Your task to perform on an android device: check storage Image 0: 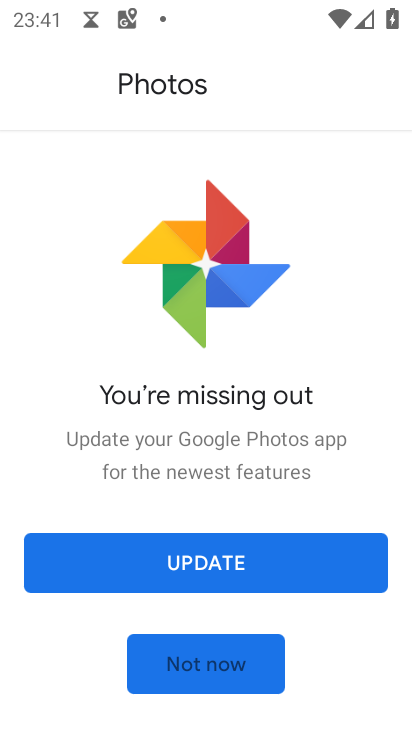
Step 0: press home button
Your task to perform on an android device: check storage Image 1: 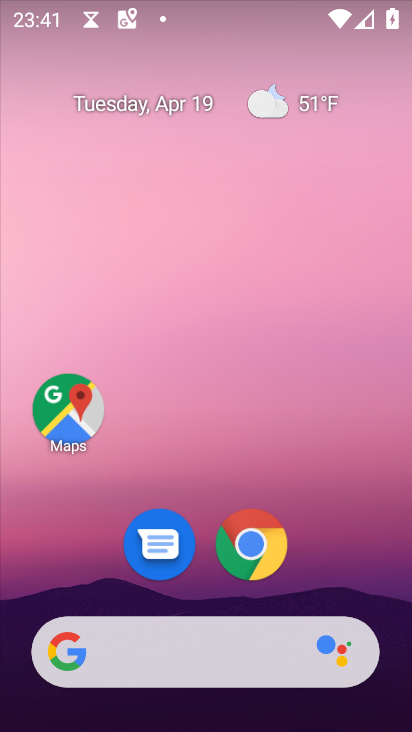
Step 1: drag from (348, 561) to (306, 163)
Your task to perform on an android device: check storage Image 2: 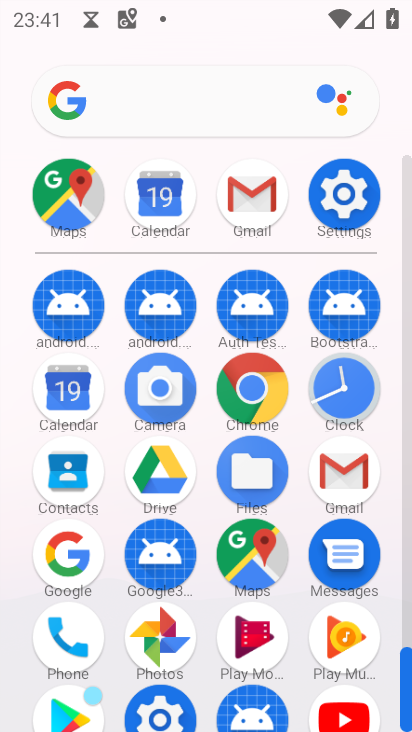
Step 2: click (350, 181)
Your task to perform on an android device: check storage Image 3: 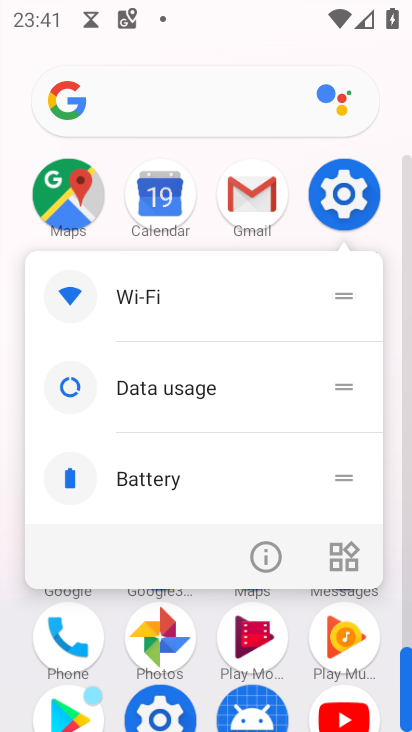
Step 3: click (350, 181)
Your task to perform on an android device: check storage Image 4: 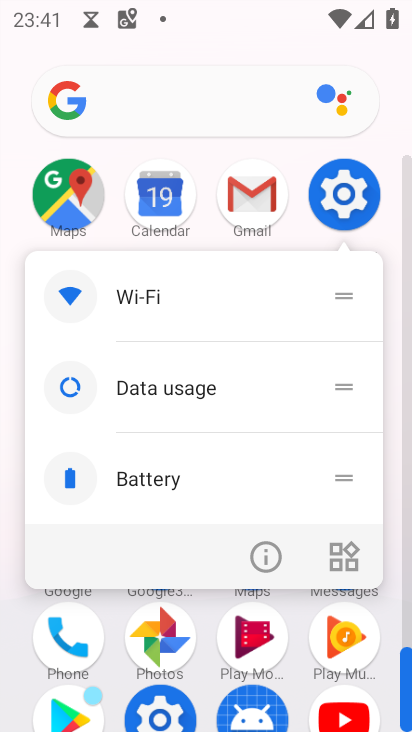
Step 4: click (350, 181)
Your task to perform on an android device: check storage Image 5: 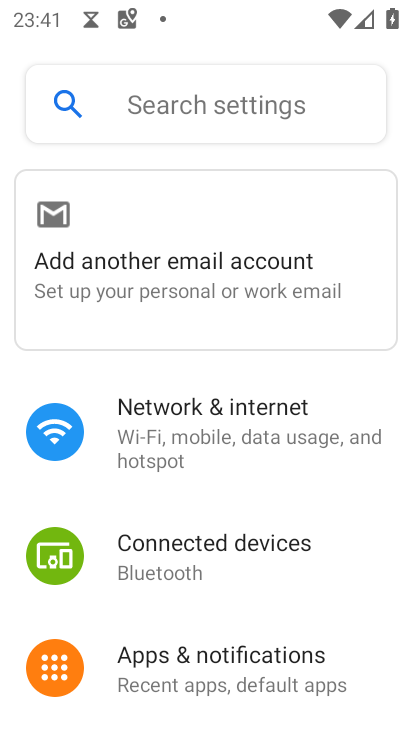
Step 5: drag from (192, 486) to (178, 379)
Your task to perform on an android device: check storage Image 6: 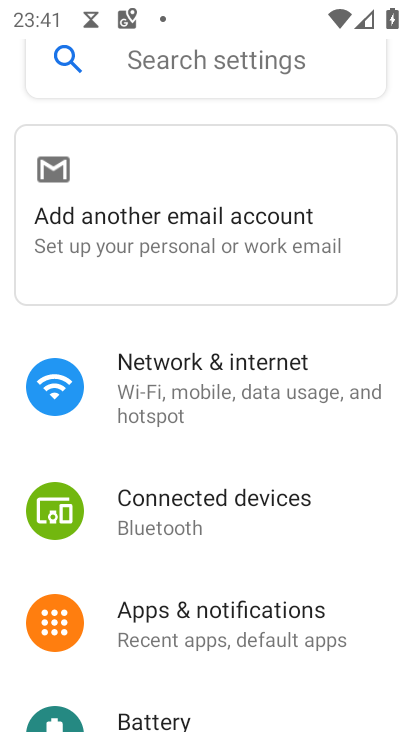
Step 6: drag from (182, 474) to (182, 329)
Your task to perform on an android device: check storage Image 7: 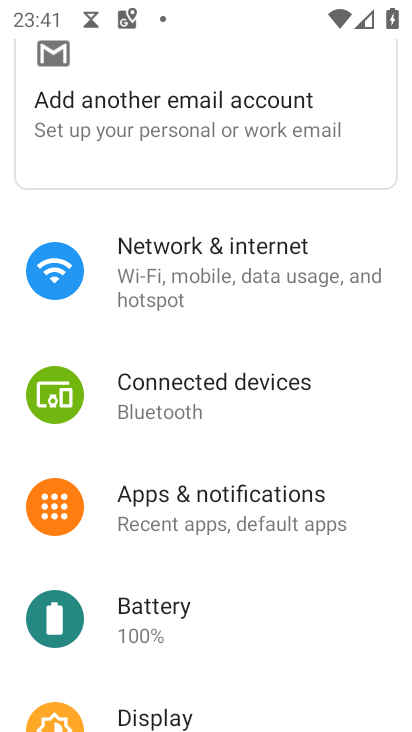
Step 7: drag from (186, 485) to (172, 394)
Your task to perform on an android device: check storage Image 8: 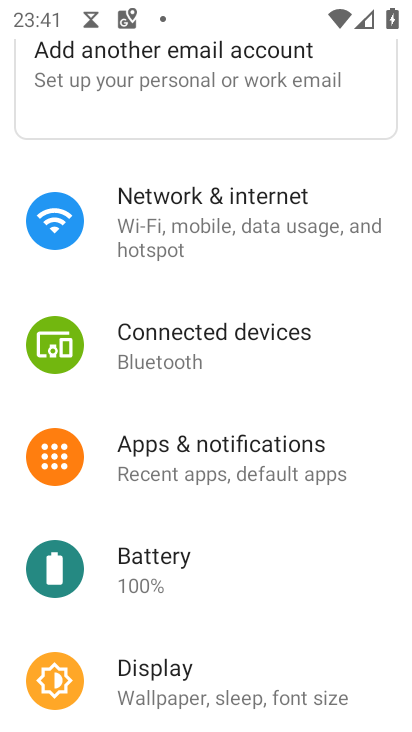
Step 8: drag from (184, 490) to (175, 413)
Your task to perform on an android device: check storage Image 9: 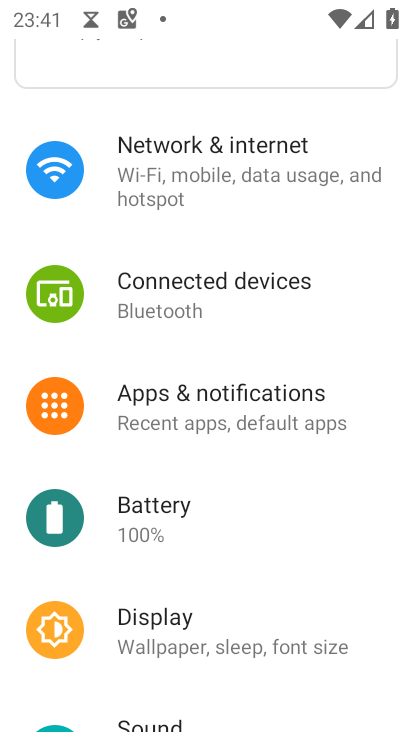
Step 9: drag from (182, 473) to (182, 391)
Your task to perform on an android device: check storage Image 10: 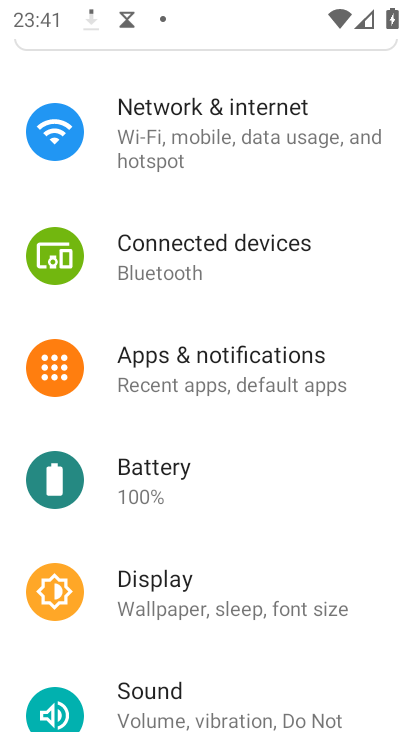
Step 10: drag from (196, 489) to (180, 398)
Your task to perform on an android device: check storage Image 11: 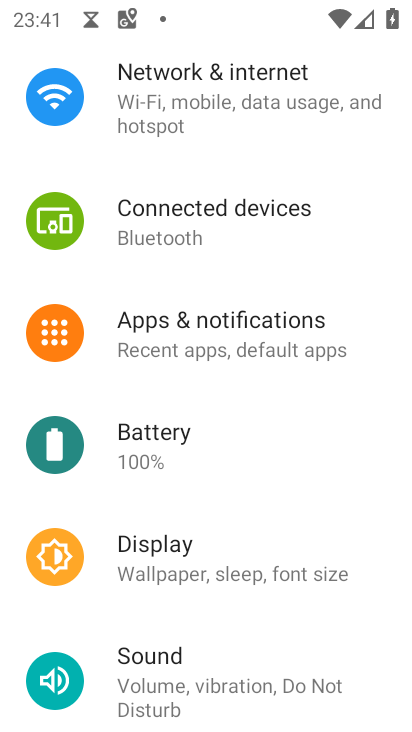
Step 11: drag from (181, 480) to (178, 415)
Your task to perform on an android device: check storage Image 12: 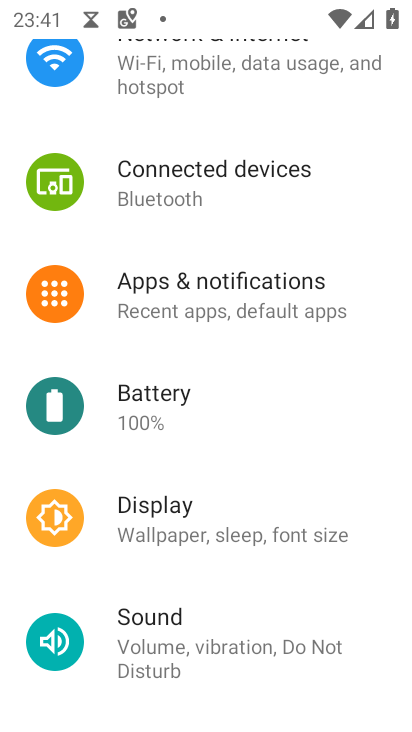
Step 12: drag from (193, 483) to (196, 395)
Your task to perform on an android device: check storage Image 13: 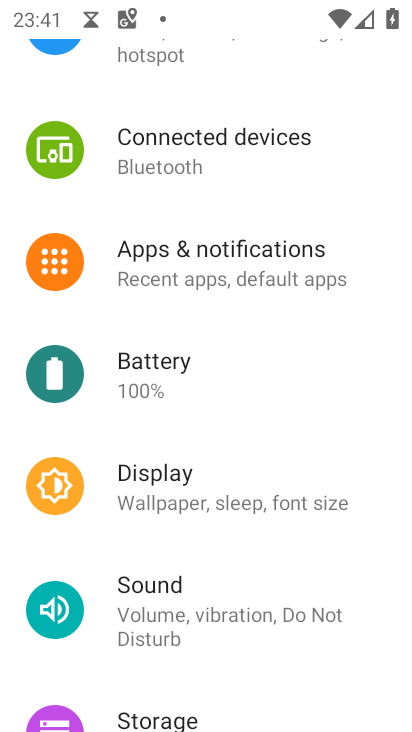
Step 13: drag from (187, 521) to (195, 389)
Your task to perform on an android device: check storage Image 14: 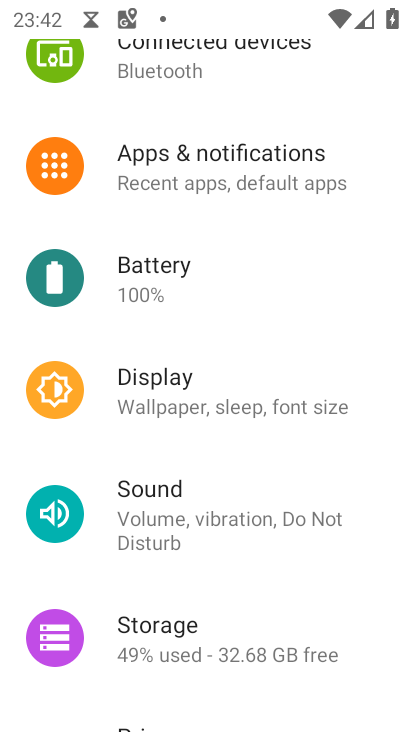
Step 14: click (160, 637)
Your task to perform on an android device: check storage Image 15: 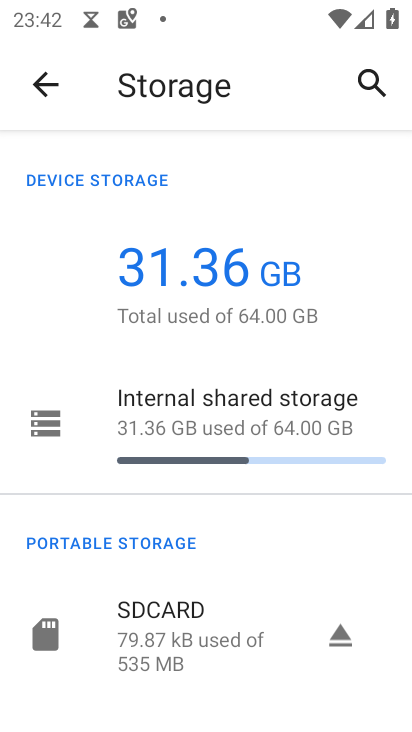
Step 15: task complete